Your task to perform on an android device: turn on priority inbox in the gmail app Image 0: 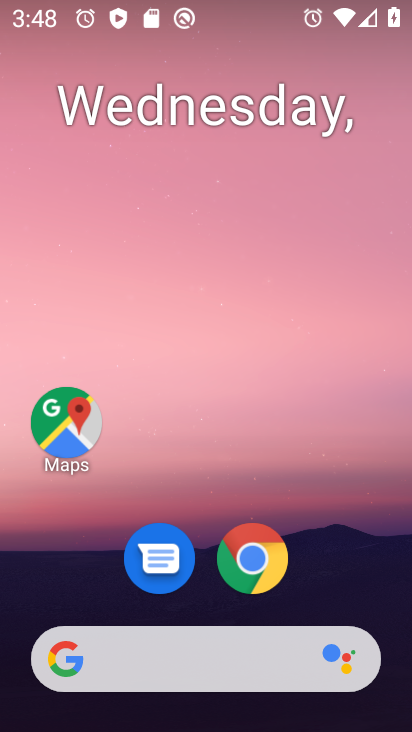
Step 0: drag from (185, 566) to (185, 198)
Your task to perform on an android device: turn on priority inbox in the gmail app Image 1: 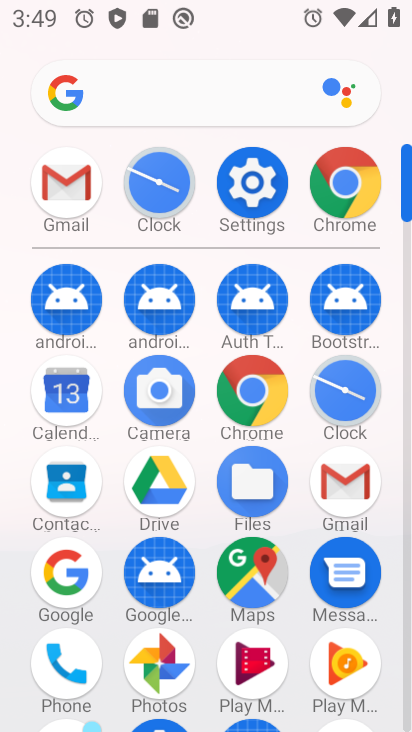
Step 1: click (340, 484)
Your task to perform on an android device: turn on priority inbox in the gmail app Image 2: 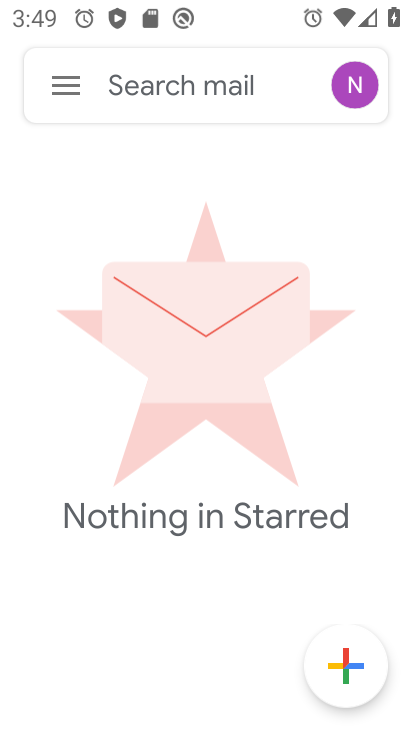
Step 2: click (65, 85)
Your task to perform on an android device: turn on priority inbox in the gmail app Image 3: 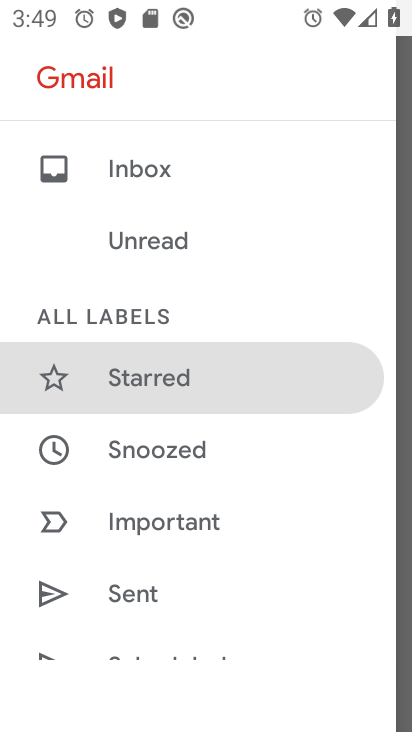
Step 3: drag from (107, 619) to (107, 206)
Your task to perform on an android device: turn on priority inbox in the gmail app Image 4: 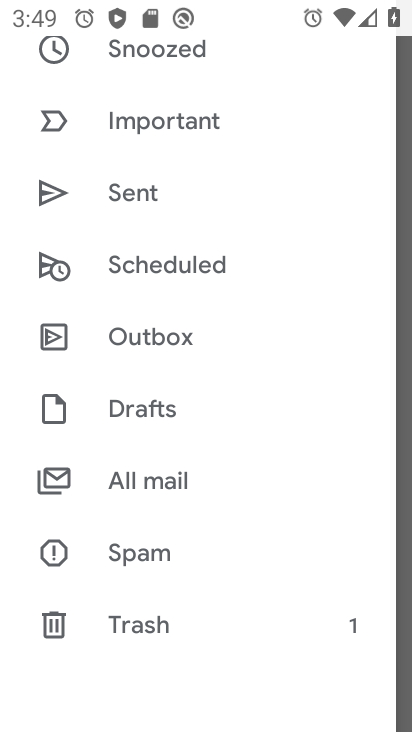
Step 4: drag from (151, 624) to (156, 260)
Your task to perform on an android device: turn on priority inbox in the gmail app Image 5: 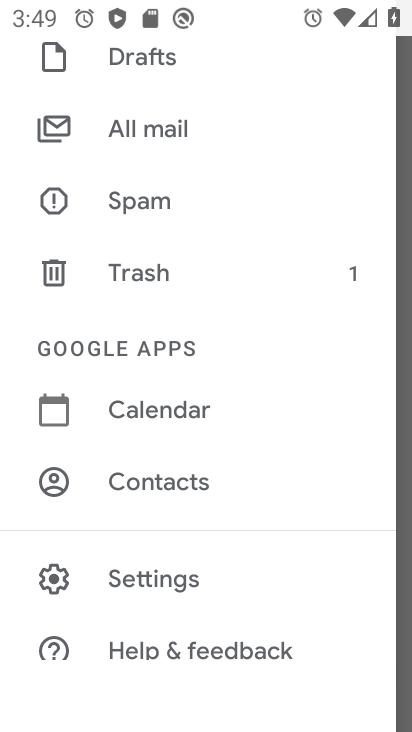
Step 5: click (144, 582)
Your task to perform on an android device: turn on priority inbox in the gmail app Image 6: 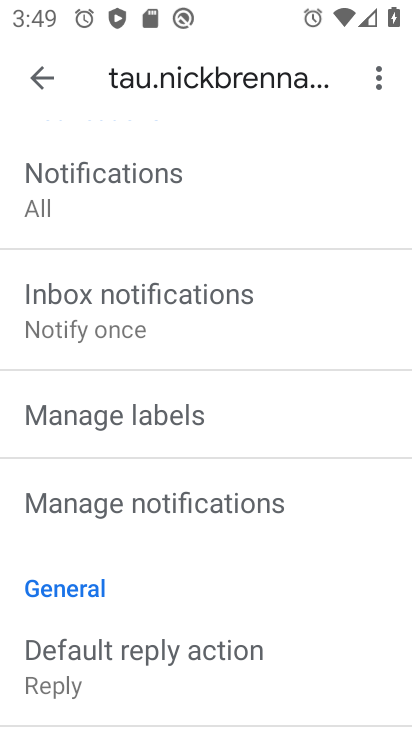
Step 6: drag from (132, 181) to (198, 567)
Your task to perform on an android device: turn on priority inbox in the gmail app Image 7: 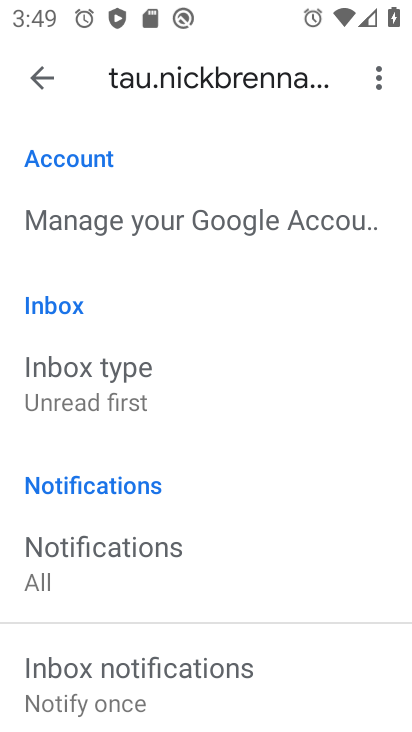
Step 7: click (61, 388)
Your task to perform on an android device: turn on priority inbox in the gmail app Image 8: 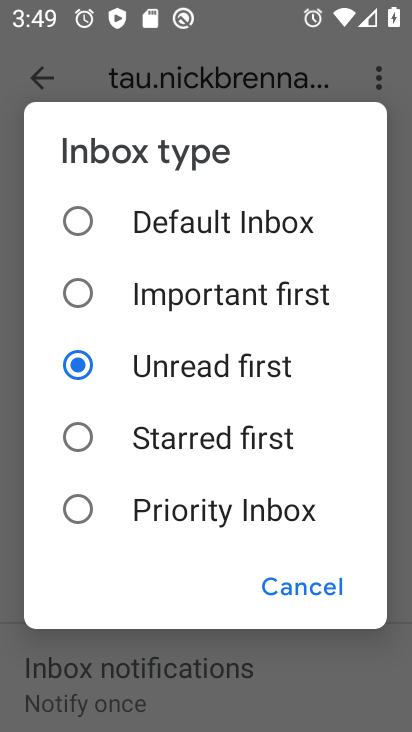
Step 8: click (231, 508)
Your task to perform on an android device: turn on priority inbox in the gmail app Image 9: 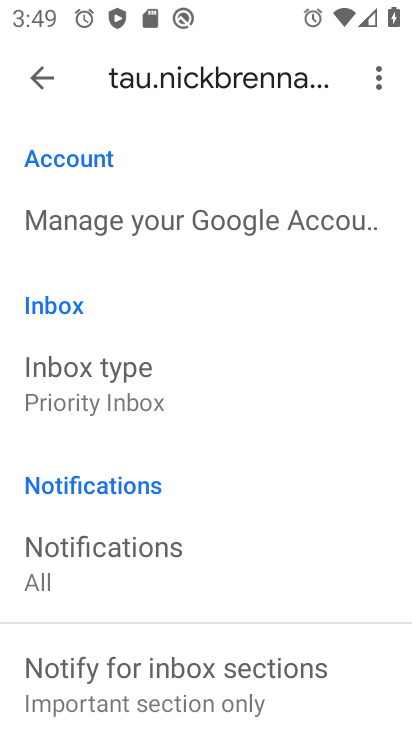
Step 9: task complete